Your task to perform on an android device: Open network settings Image 0: 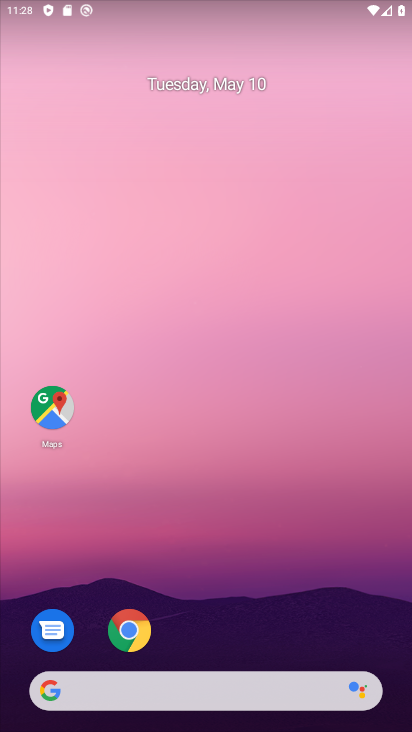
Step 0: drag from (358, 609) to (253, 8)
Your task to perform on an android device: Open network settings Image 1: 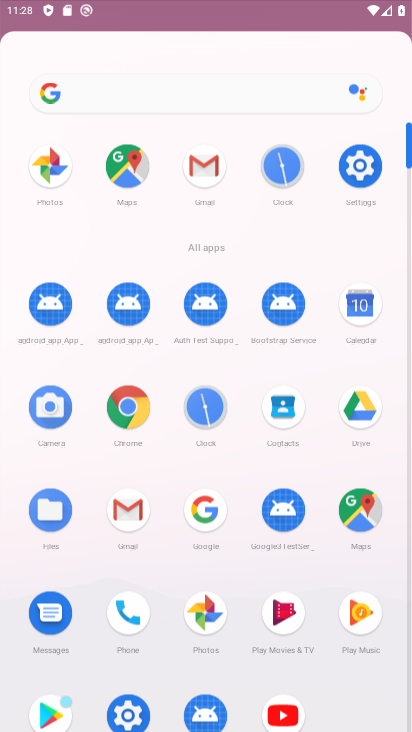
Step 1: drag from (233, 504) to (243, 128)
Your task to perform on an android device: Open network settings Image 2: 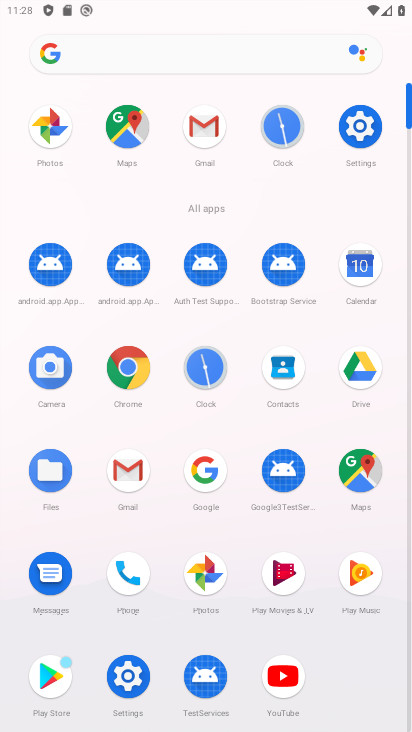
Step 2: click (355, 130)
Your task to perform on an android device: Open network settings Image 3: 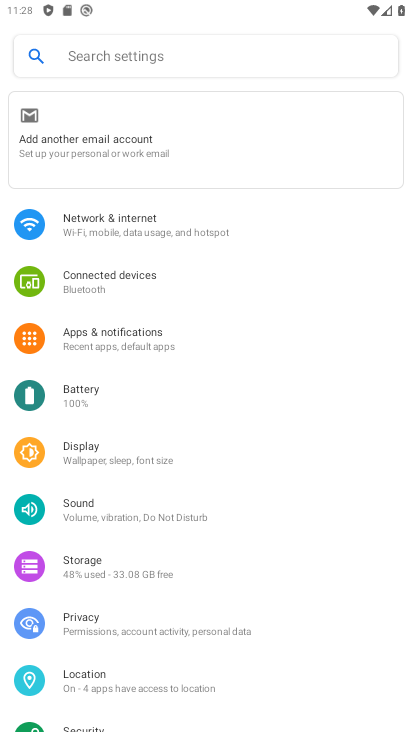
Step 3: click (69, 225)
Your task to perform on an android device: Open network settings Image 4: 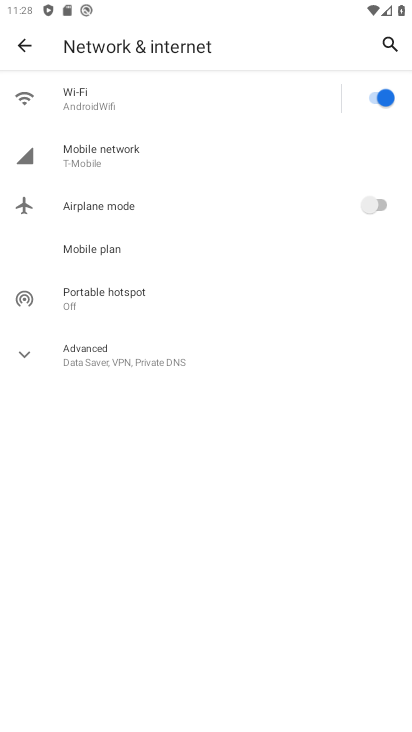
Step 4: task complete